Your task to perform on an android device: change the clock display to show seconds Image 0: 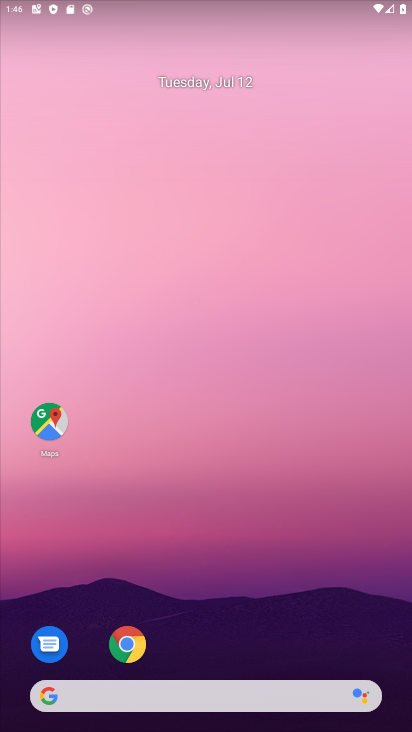
Step 0: drag from (232, 669) to (316, 79)
Your task to perform on an android device: change the clock display to show seconds Image 1: 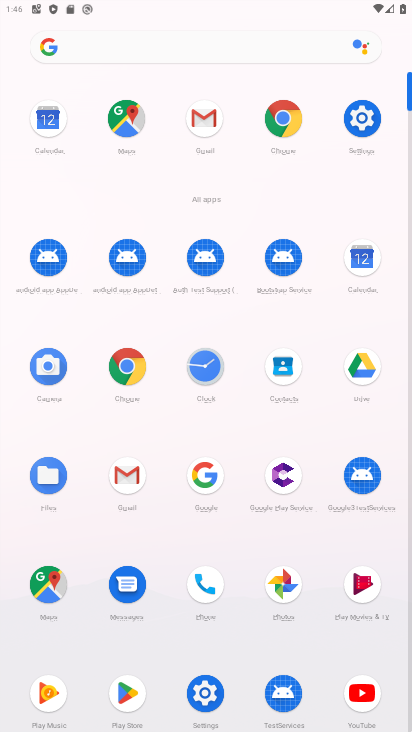
Step 1: click (203, 376)
Your task to perform on an android device: change the clock display to show seconds Image 2: 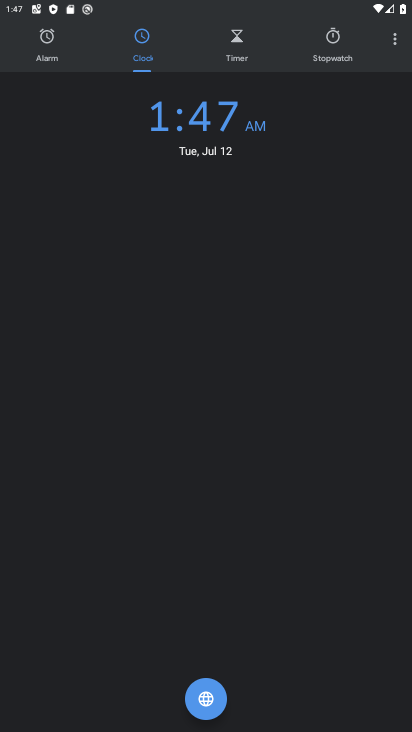
Step 2: click (399, 42)
Your task to perform on an android device: change the clock display to show seconds Image 3: 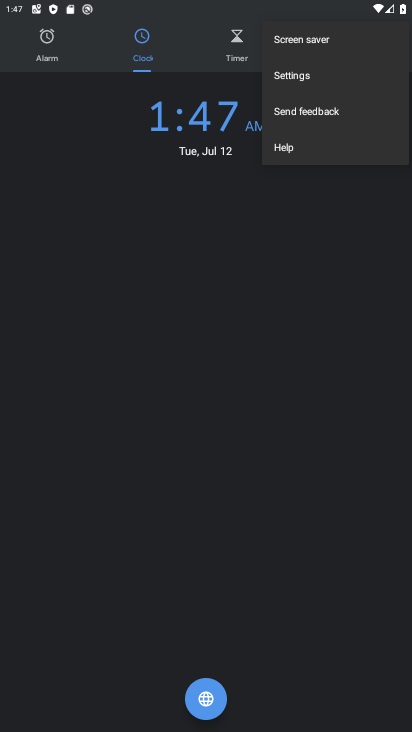
Step 3: click (294, 78)
Your task to perform on an android device: change the clock display to show seconds Image 4: 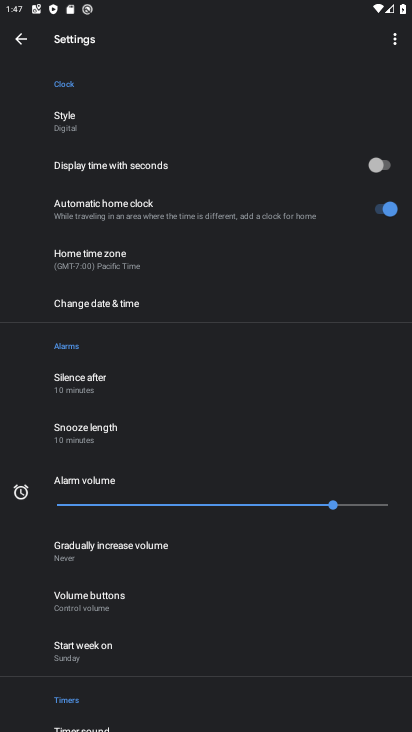
Step 4: click (376, 161)
Your task to perform on an android device: change the clock display to show seconds Image 5: 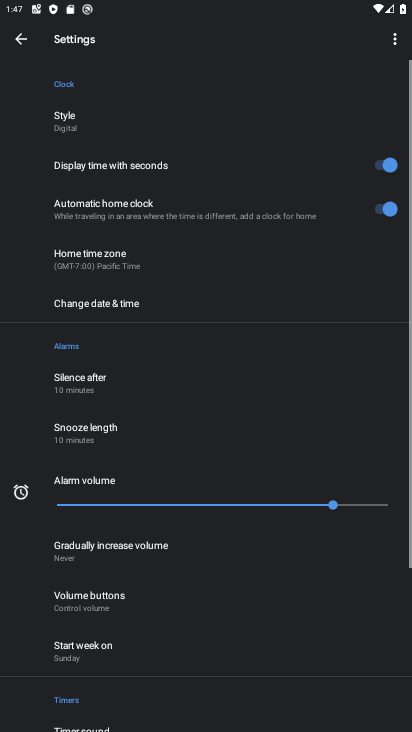
Step 5: task complete